Your task to perform on an android device: Go to Wikipedia Image 0: 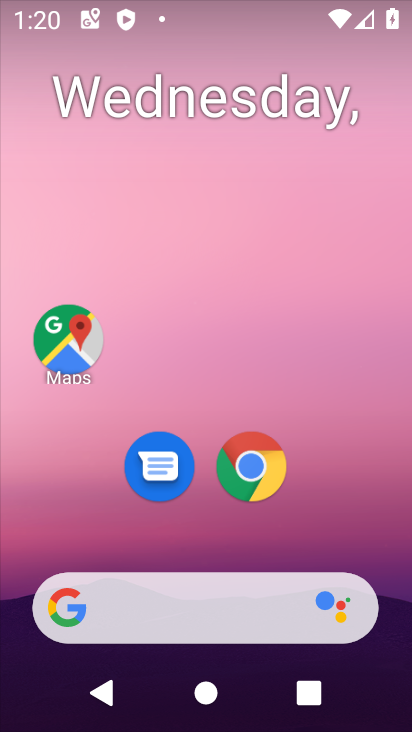
Step 0: press home button
Your task to perform on an android device: Go to Wikipedia Image 1: 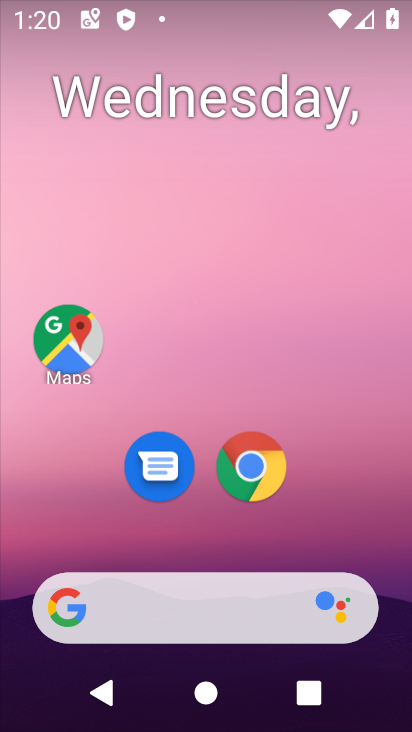
Step 1: click (278, 442)
Your task to perform on an android device: Go to Wikipedia Image 2: 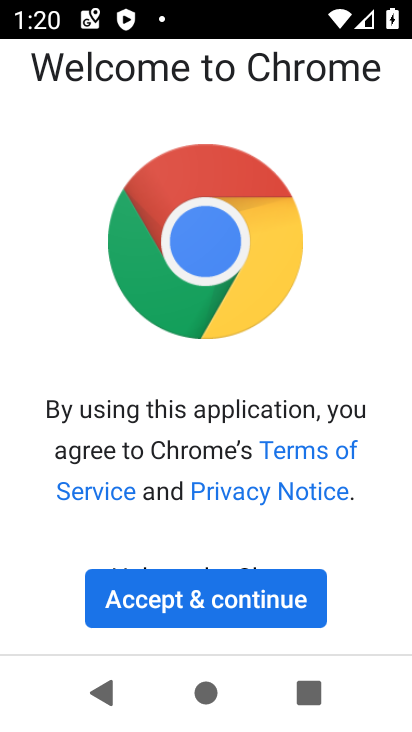
Step 2: click (251, 575)
Your task to perform on an android device: Go to Wikipedia Image 3: 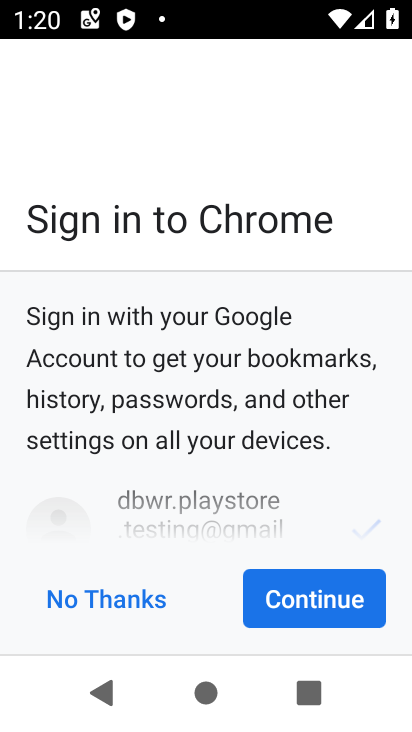
Step 3: click (347, 603)
Your task to perform on an android device: Go to Wikipedia Image 4: 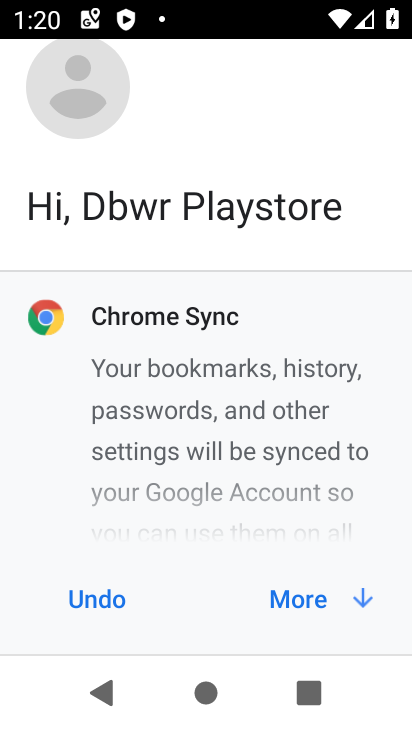
Step 4: click (272, 600)
Your task to perform on an android device: Go to Wikipedia Image 5: 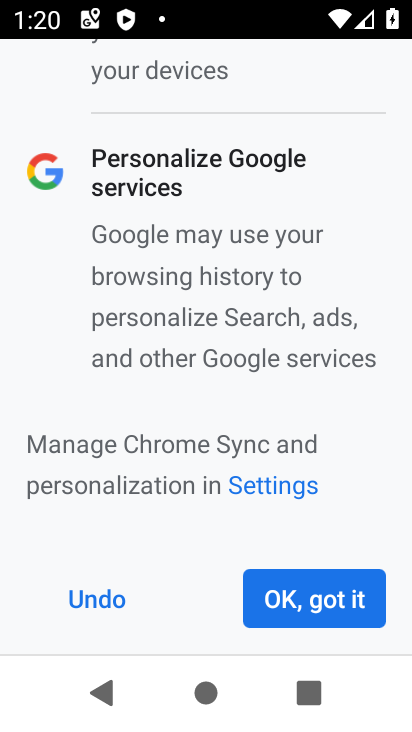
Step 5: click (275, 590)
Your task to perform on an android device: Go to Wikipedia Image 6: 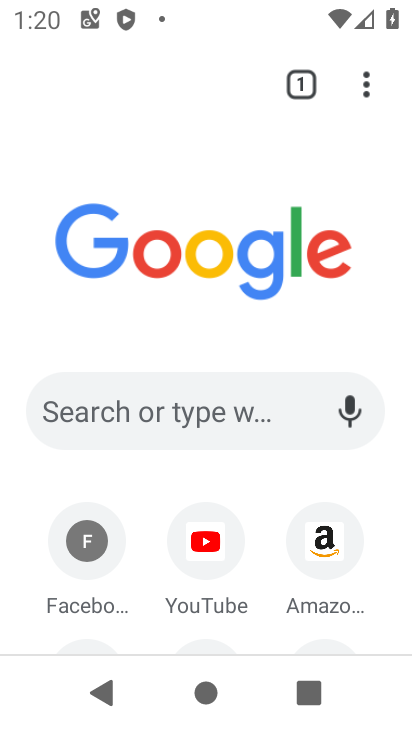
Step 6: click (196, 410)
Your task to perform on an android device: Go to Wikipedia Image 7: 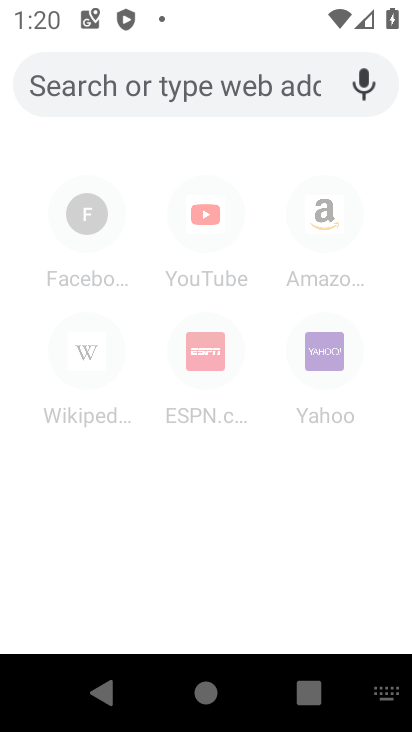
Step 7: type "Wikipedia"
Your task to perform on an android device: Go to Wikipedia Image 8: 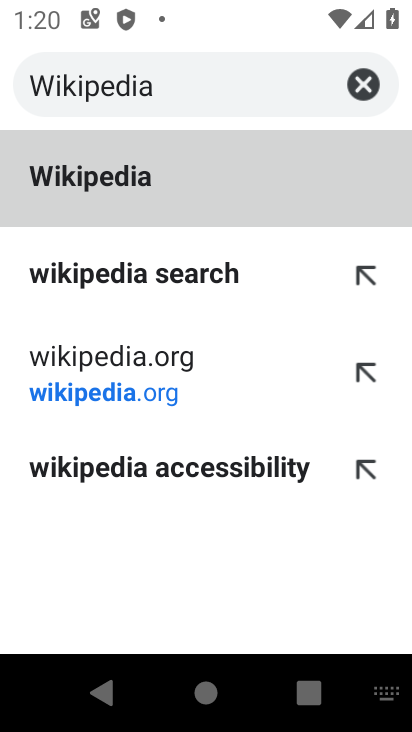
Step 8: click (139, 176)
Your task to perform on an android device: Go to Wikipedia Image 9: 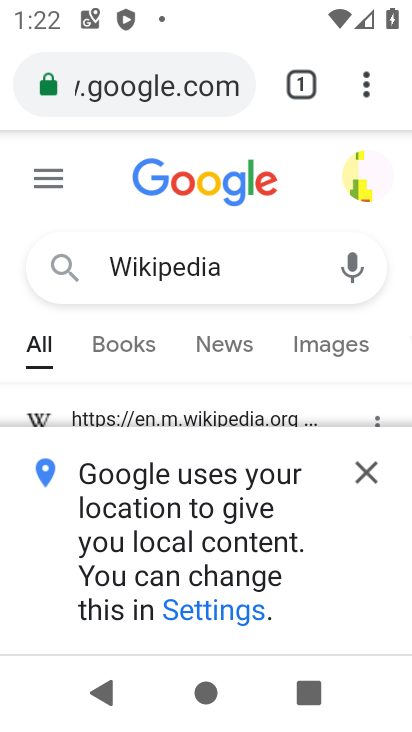
Step 9: task complete